Your task to perform on an android device: search for starred emails in the gmail app Image 0: 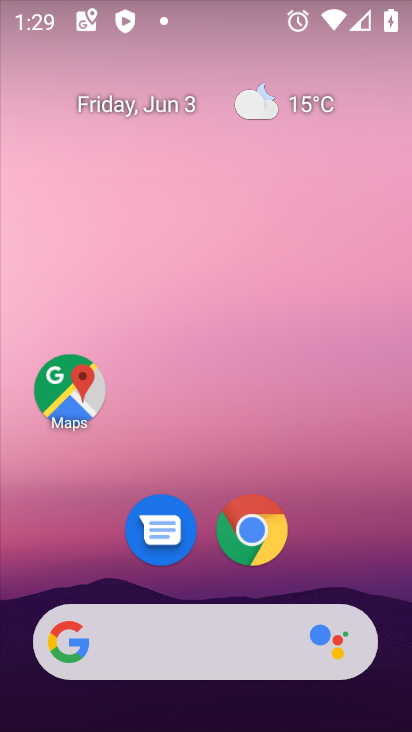
Step 0: drag from (375, 581) to (314, 103)
Your task to perform on an android device: search for starred emails in the gmail app Image 1: 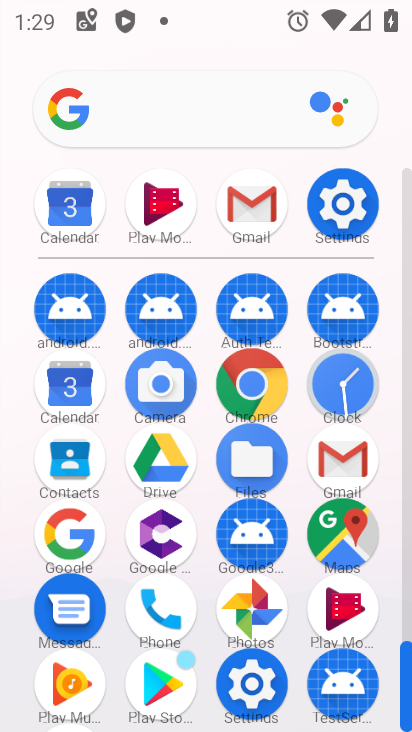
Step 1: click (250, 219)
Your task to perform on an android device: search for starred emails in the gmail app Image 2: 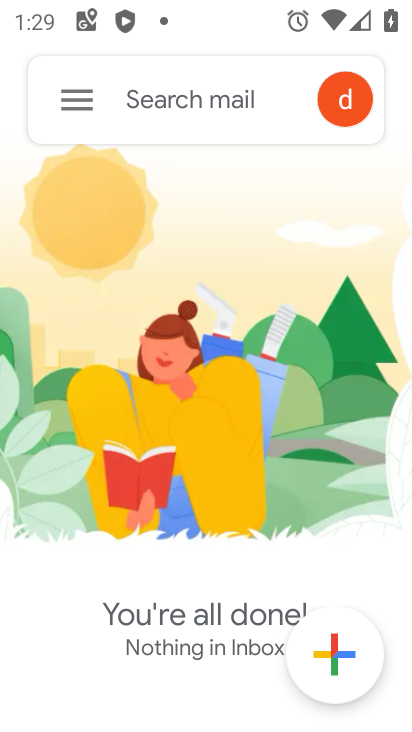
Step 2: click (73, 95)
Your task to perform on an android device: search for starred emails in the gmail app Image 3: 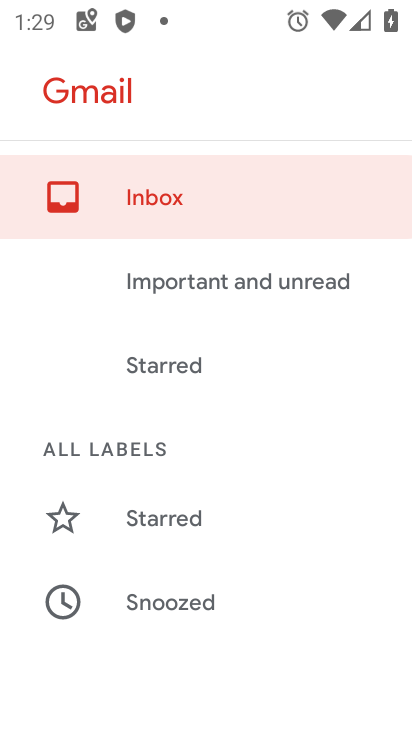
Step 3: click (162, 363)
Your task to perform on an android device: search for starred emails in the gmail app Image 4: 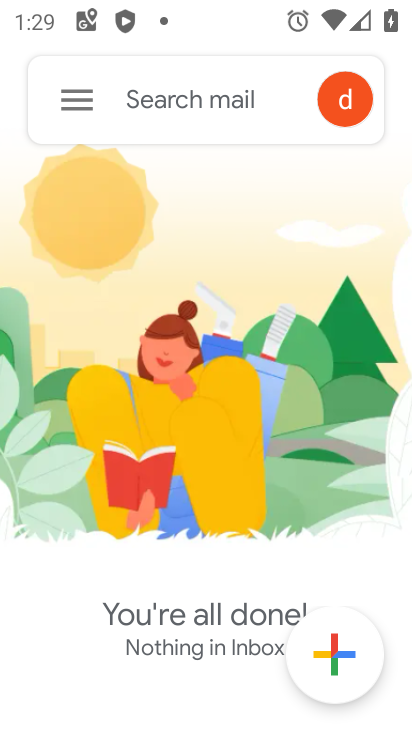
Step 4: task complete